Your task to perform on an android device: What is the recent news? Image 0: 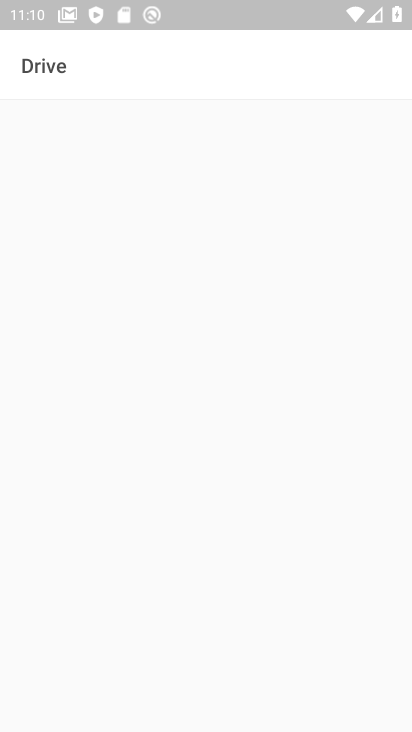
Step 0: press home button
Your task to perform on an android device: What is the recent news? Image 1: 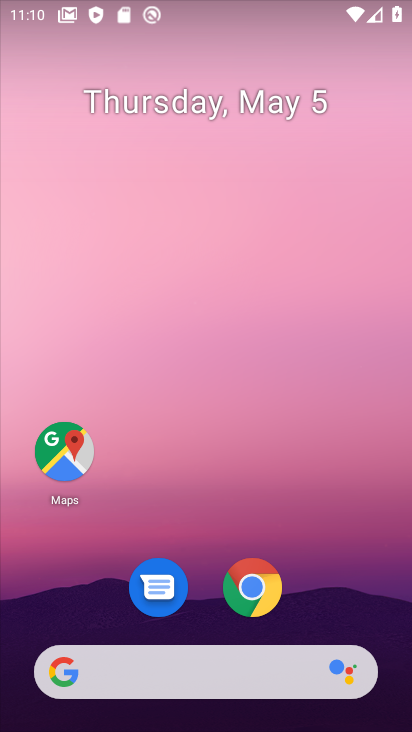
Step 1: task complete